Your task to perform on an android device: delete the emails in spam in the gmail app Image 0: 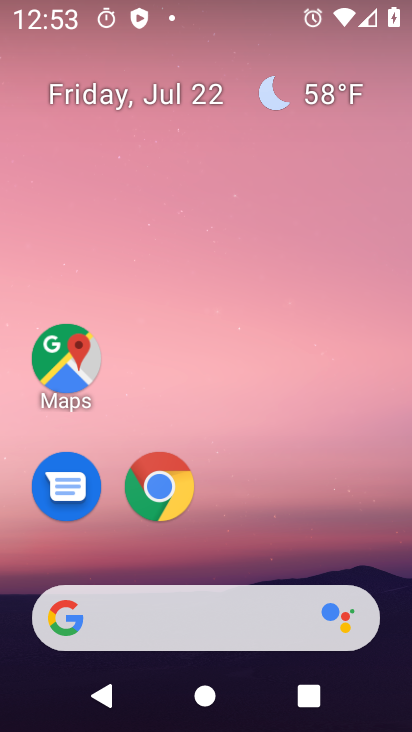
Step 0: drag from (399, 534) to (396, 192)
Your task to perform on an android device: delete the emails in spam in the gmail app Image 1: 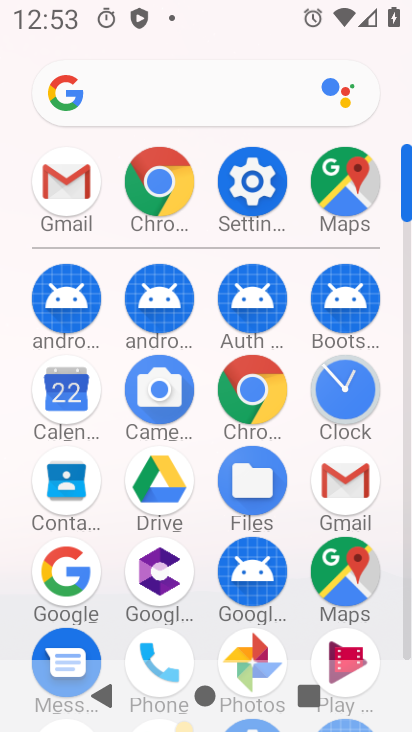
Step 1: click (363, 488)
Your task to perform on an android device: delete the emails in spam in the gmail app Image 2: 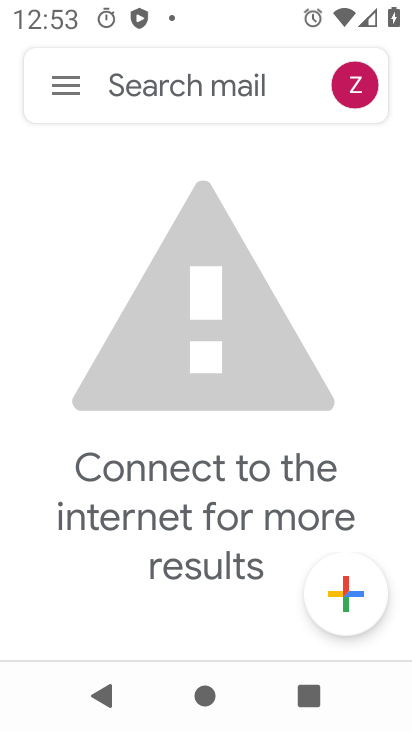
Step 2: click (62, 91)
Your task to perform on an android device: delete the emails in spam in the gmail app Image 3: 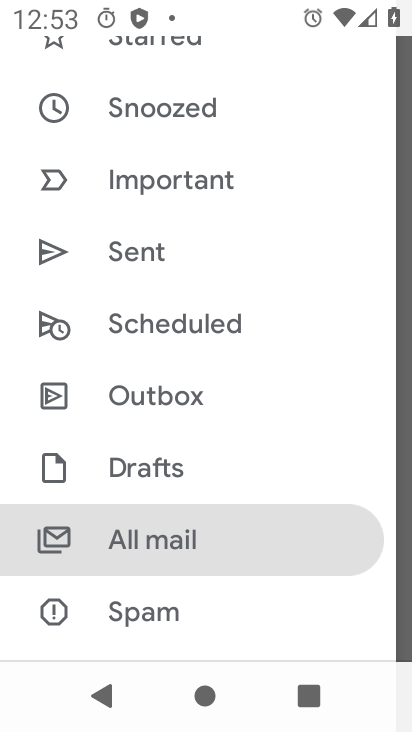
Step 3: drag from (265, 147) to (278, 202)
Your task to perform on an android device: delete the emails in spam in the gmail app Image 4: 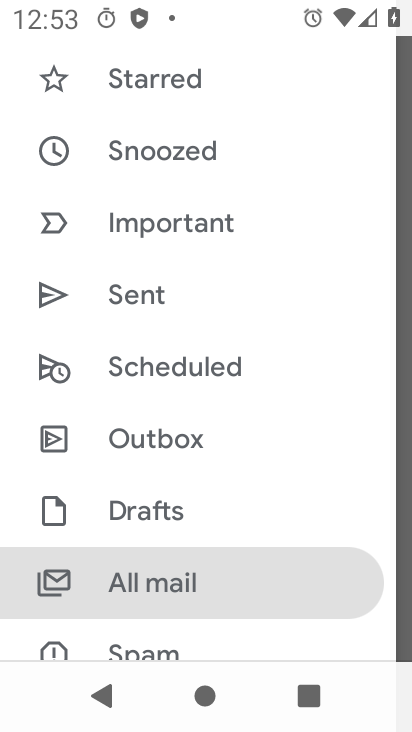
Step 4: drag from (290, 150) to (294, 233)
Your task to perform on an android device: delete the emails in spam in the gmail app Image 5: 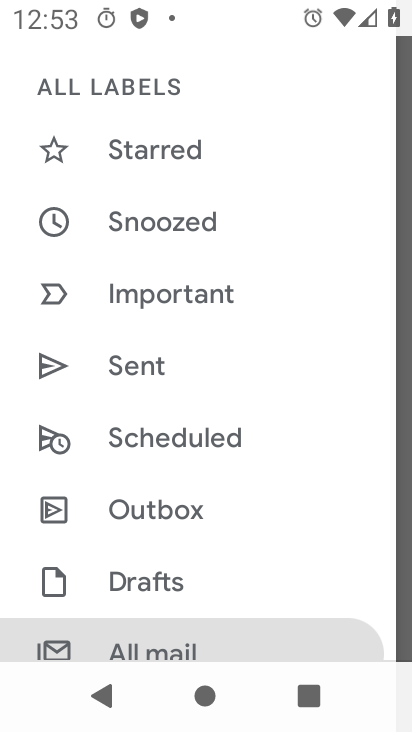
Step 5: drag from (300, 150) to (303, 215)
Your task to perform on an android device: delete the emails in spam in the gmail app Image 6: 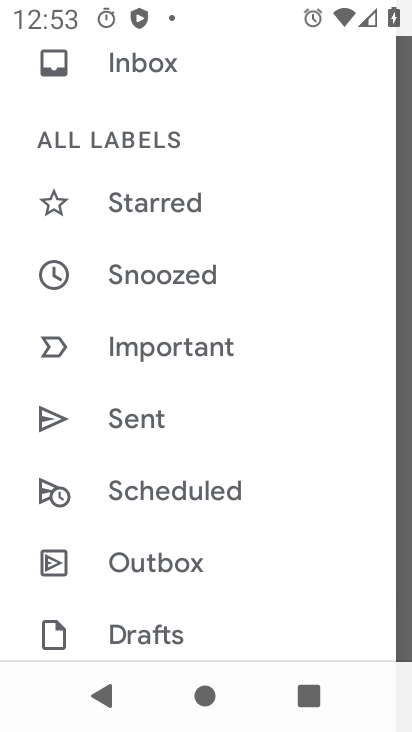
Step 6: drag from (302, 239) to (303, 304)
Your task to perform on an android device: delete the emails in spam in the gmail app Image 7: 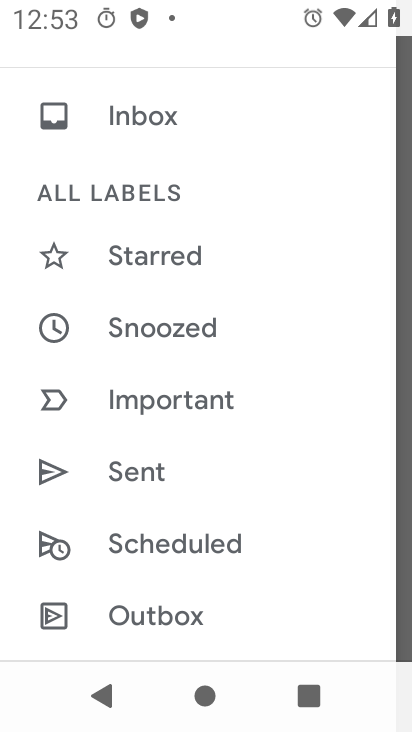
Step 7: drag from (312, 180) to (313, 326)
Your task to perform on an android device: delete the emails in spam in the gmail app Image 8: 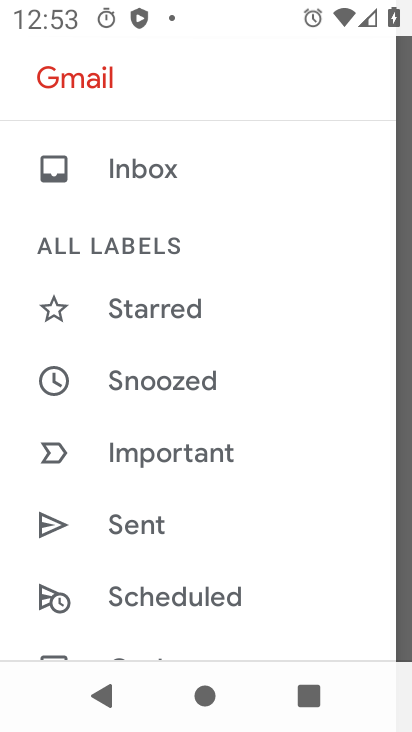
Step 8: drag from (328, 431) to (321, 358)
Your task to perform on an android device: delete the emails in spam in the gmail app Image 9: 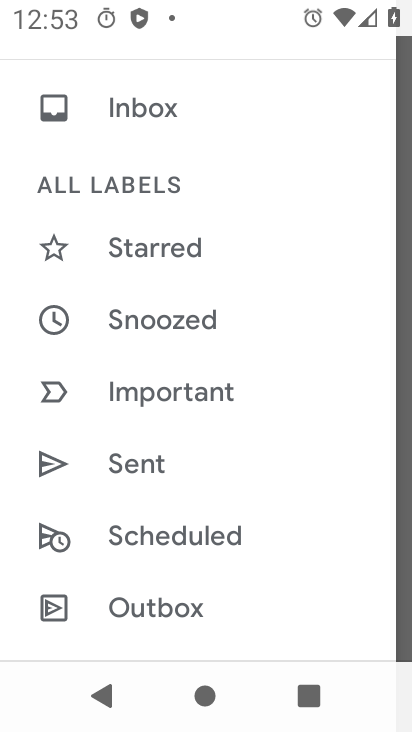
Step 9: drag from (306, 500) to (300, 415)
Your task to perform on an android device: delete the emails in spam in the gmail app Image 10: 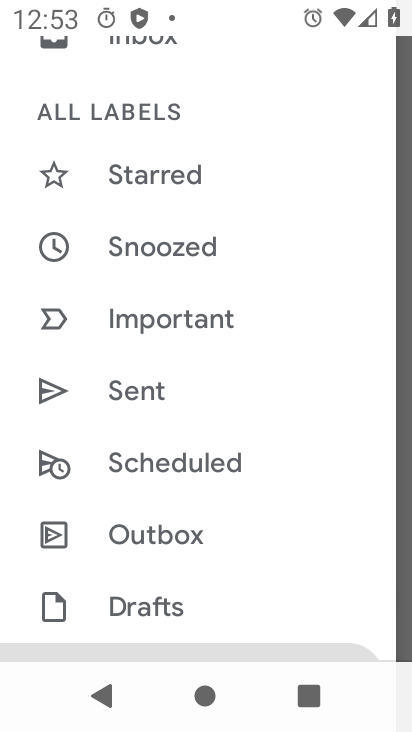
Step 10: drag from (297, 511) to (302, 421)
Your task to perform on an android device: delete the emails in spam in the gmail app Image 11: 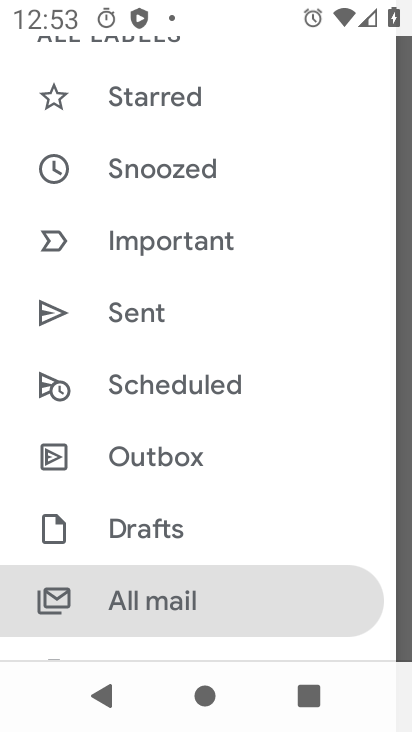
Step 11: drag from (302, 526) to (304, 427)
Your task to perform on an android device: delete the emails in spam in the gmail app Image 12: 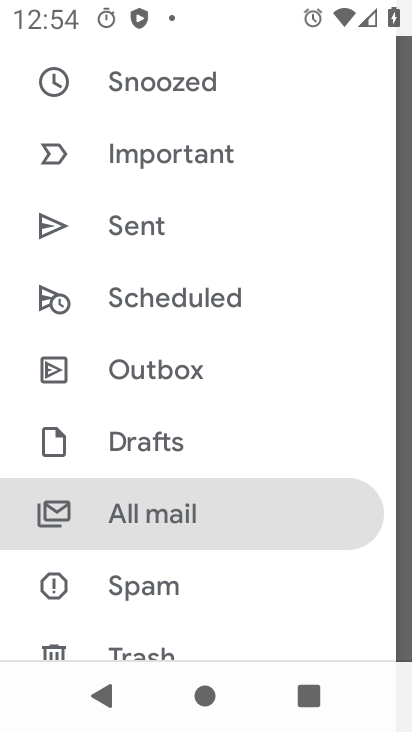
Step 12: drag from (292, 575) to (298, 459)
Your task to perform on an android device: delete the emails in spam in the gmail app Image 13: 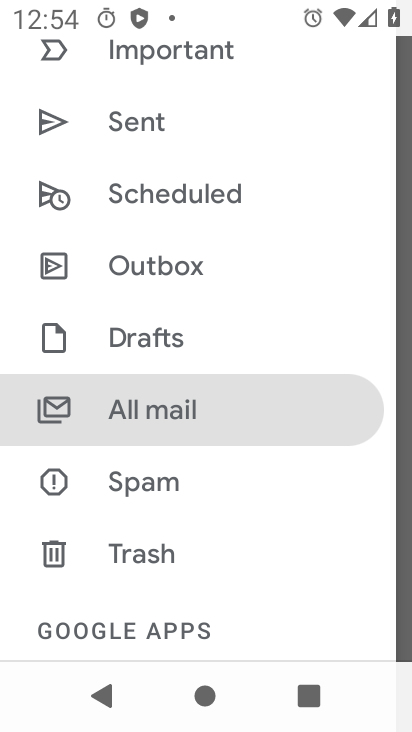
Step 13: drag from (290, 549) to (297, 460)
Your task to perform on an android device: delete the emails in spam in the gmail app Image 14: 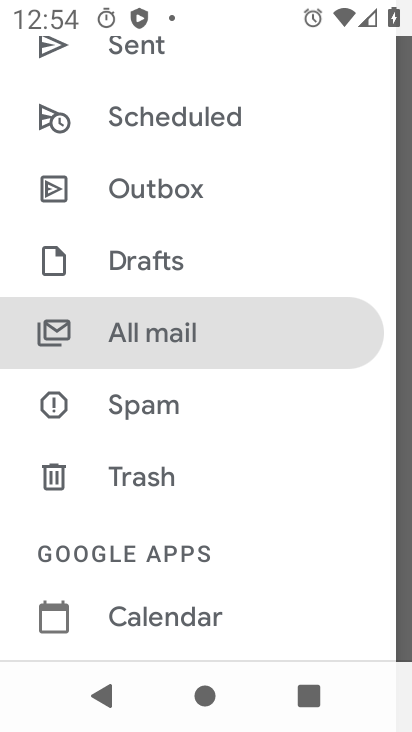
Step 14: click (198, 407)
Your task to perform on an android device: delete the emails in spam in the gmail app Image 15: 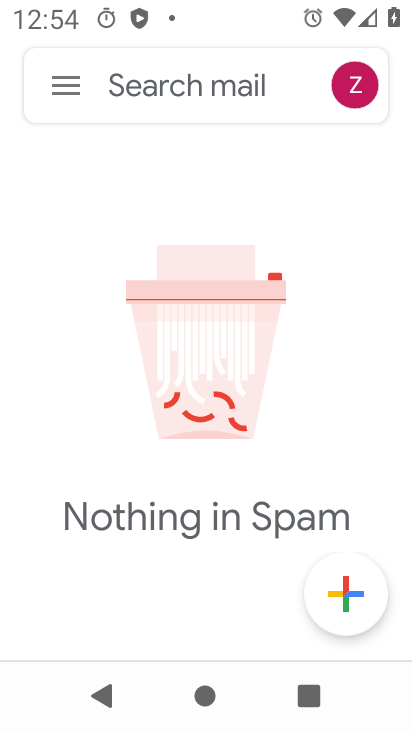
Step 15: task complete